Your task to perform on an android device: Search for the Best selling coffee table on Ikea Image 0: 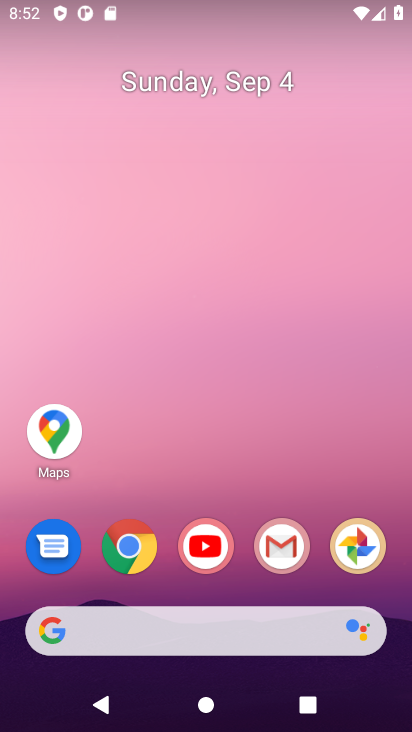
Step 0: click (127, 547)
Your task to perform on an android device: Search for the Best selling coffee table on Ikea Image 1: 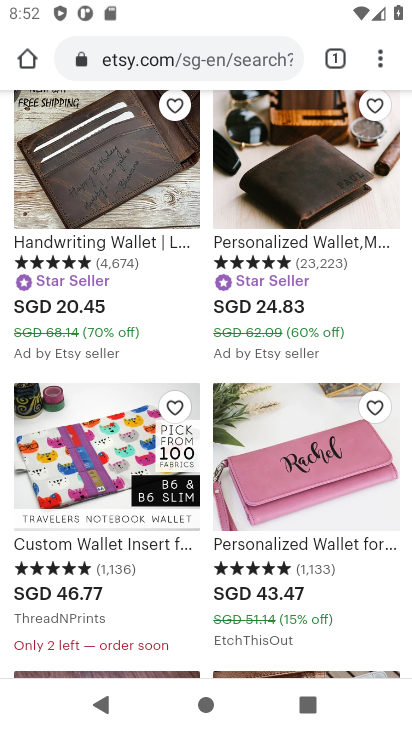
Step 1: press home button
Your task to perform on an android device: Search for the Best selling coffee table on Ikea Image 2: 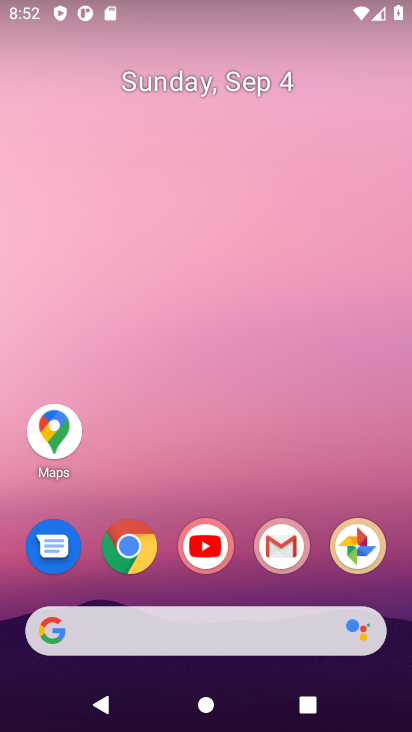
Step 2: click (128, 553)
Your task to perform on an android device: Search for the Best selling coffee table on Ikea Image 3: 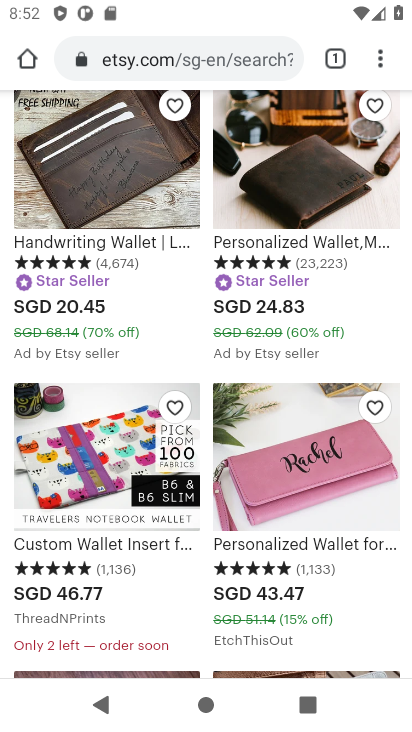
Step 3: click (186, 67)
Your task to perform on an android device: Search for the Best selling coffee table on Ikea Image 4: 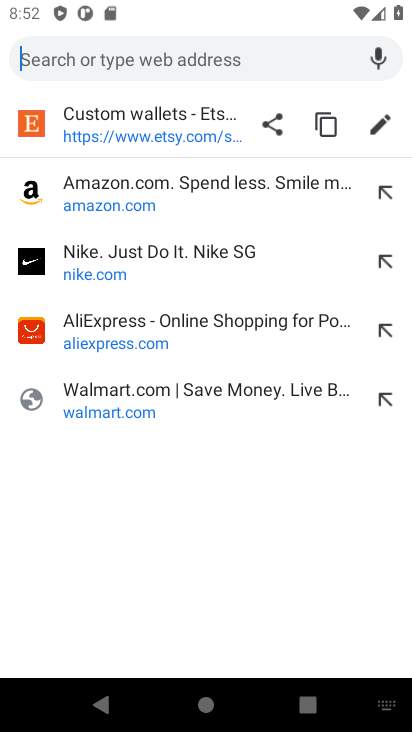
Step 4: type " Ikea"
Your task to perform on an android device: Search for the Best selling coffee table on Ikea Image 5: 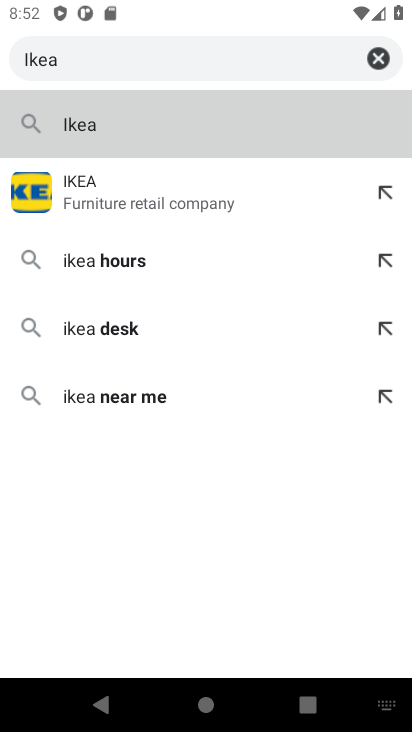
Step 5: click (83, 137)
Your task to perform on an android device: Search for the Best selling coffee table on Ikea Image 6: 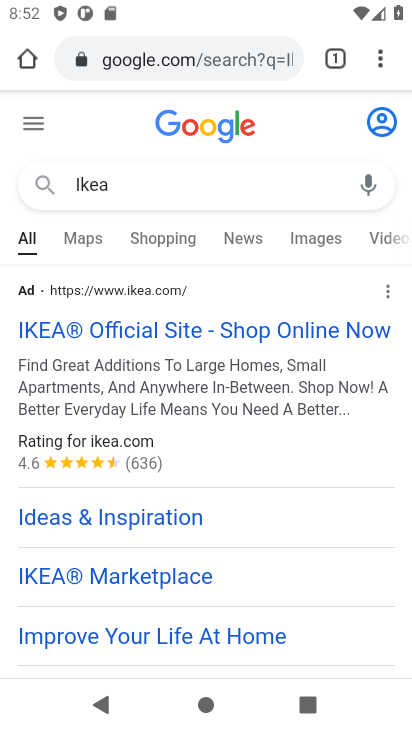
Step 6: drag from (271, 464) to (275, 150)
Your task to perform on an android device: Search for the Best selling coffee table on Ikea Image 7: 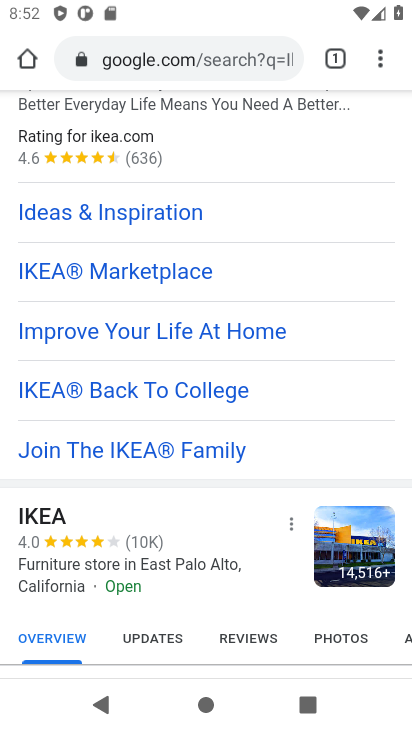
Step 7: drag from (218, 249) to (225, 149)
Your task to perform on an android device: Search for the Best selling coffee table on Ikea Image 8: 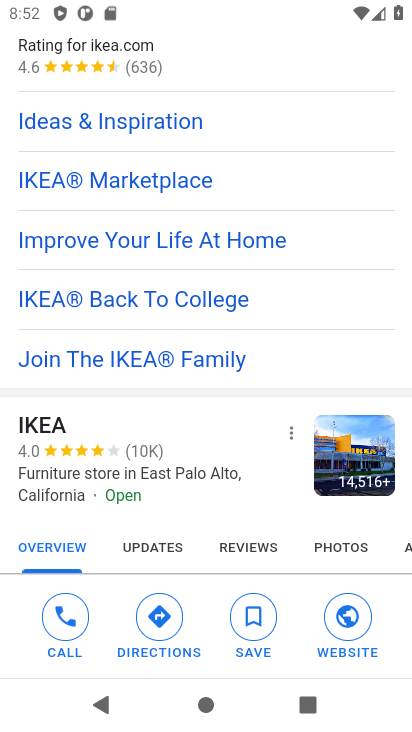
Step 8: drag from (304, 415) to (306, 161)
Your task to perform on an android device: Search for the Best selling coffee table on Ikea Image 9: 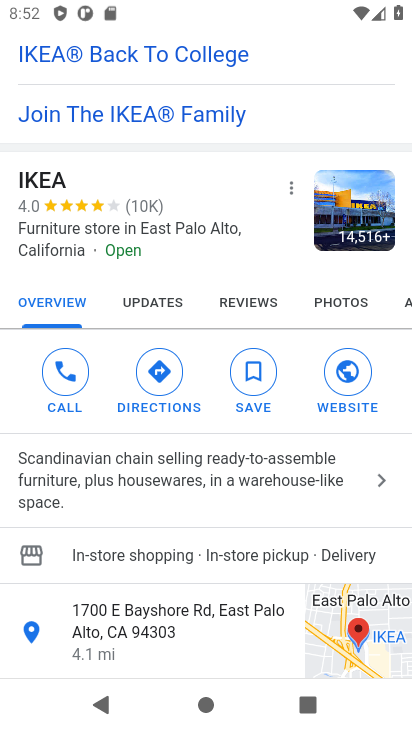
Step 9: drag from (200, 298) to (228, 97)
Your task to perform on an android device: Search for the Best selling coffee table on Ikea Image 10: 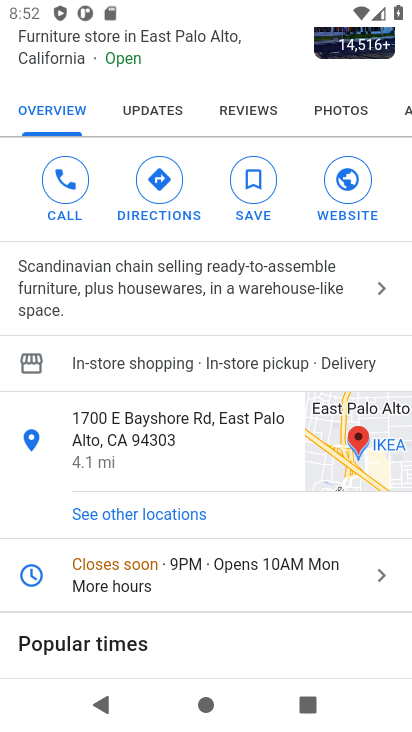
Step 10: drag from (190, 270) to (200, 169)
Your task to perform on an android device: Search for the Best selling coffee table on Ikea Image 11: 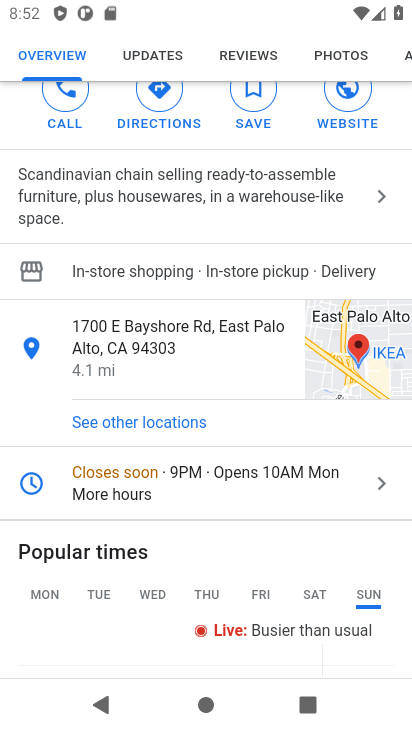
Step 11: drag from (151, 501) to (215, 193)
Your task to perform on an android device: Search for the Best selling coffee table on Ikea Image 12: 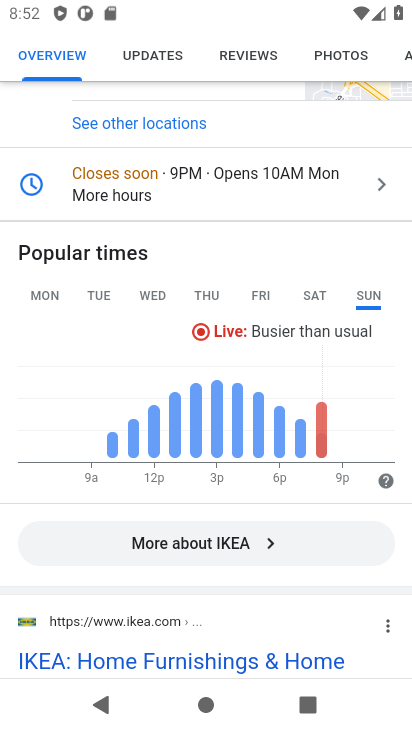
Step 12: drag from (153, 445) to (185, 200)
Your task to perform on an android device: Search for the Best selling coffee table on Ikea Image 13: 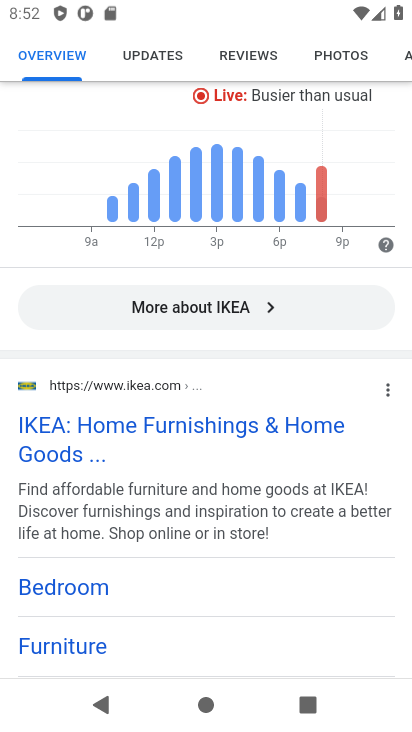
Step 13: click (125, 421)
Your task to perform on an android device: Search for the Best selling coffee table on Ikea Image 14: 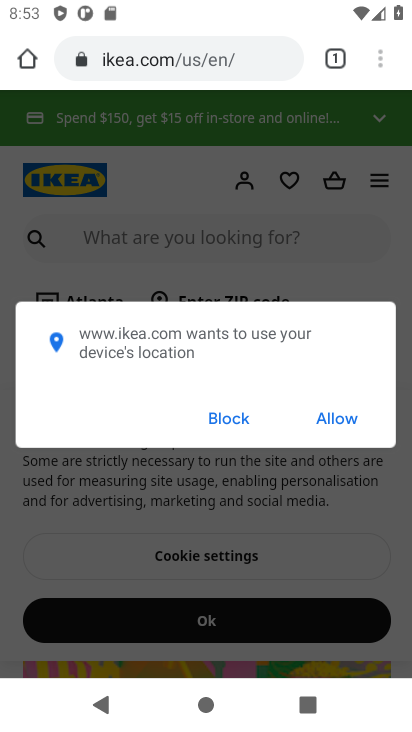
Step 14: click (220, 417)
Your task to perform on an android device: Search for the Best selling coffee table on Ikea Image 15: 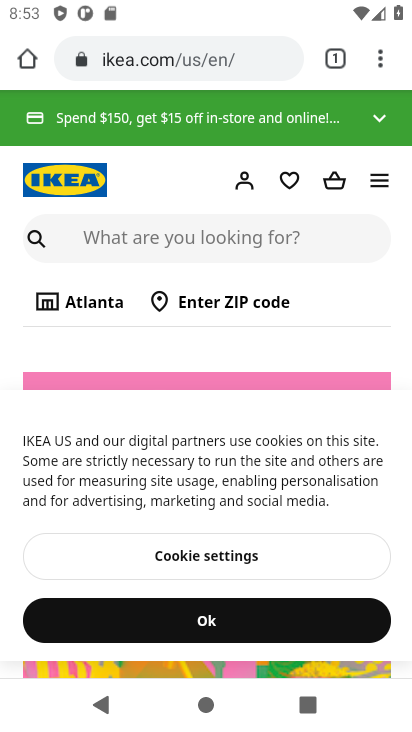
Step 15: click (133, 242)
Your task to perform on an android device: Search for the Best selling coffee table on Ikea Image 16: 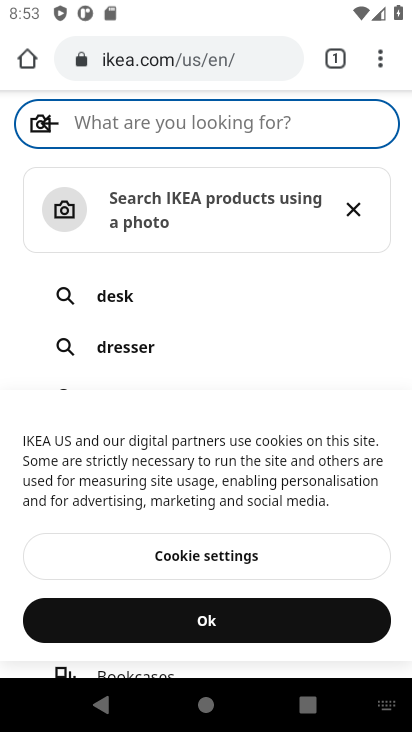
Step 16: type "Best selling coffee table"
Your task to perform on an android device: Search for the Best selling coffee table on Ikea Image 17: 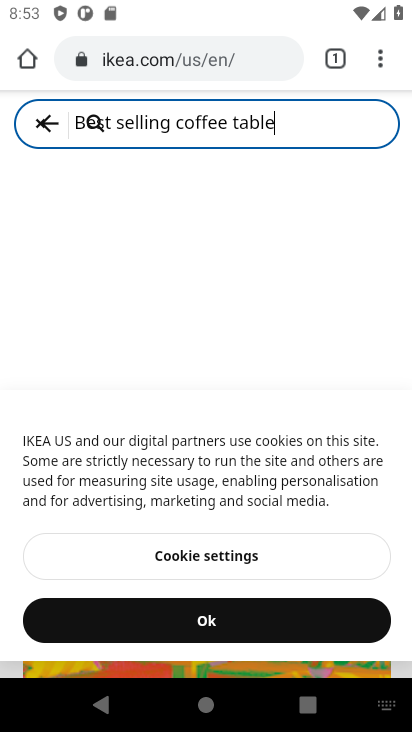
Step 17: click (293, 125)
Your task to perform on an android device: Search for the Best selling coffee table on Ikea Image 18: 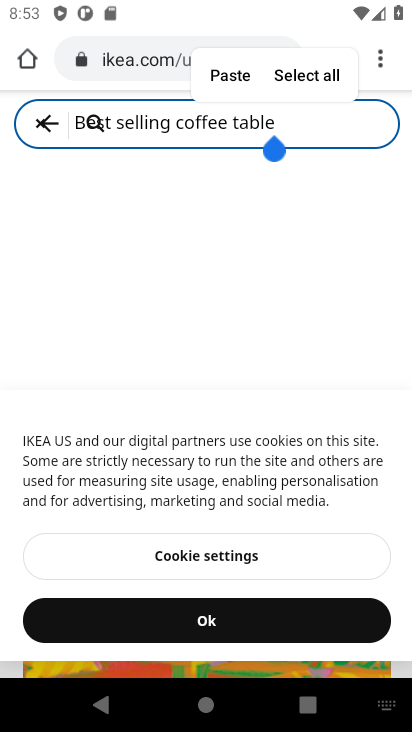
Step 18: click (218, 618)
Your task to perform on an android device: Search for the Best selling coffee table on Ikea Image 19: 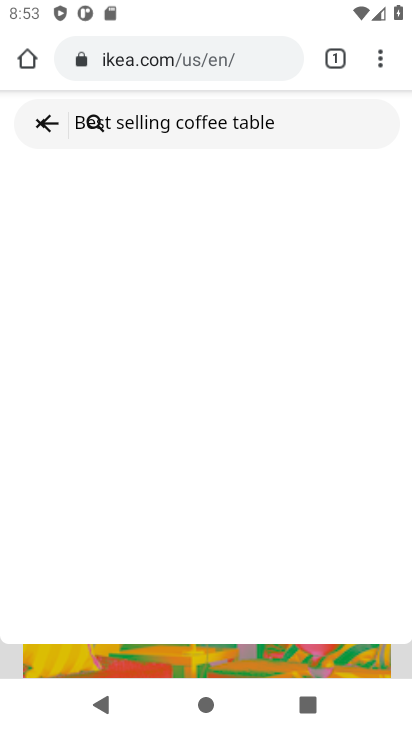
Step 19: click (296, 130)
Your task to perform on an android device: Search for the Best selling coffee table on Ikea Image 20: 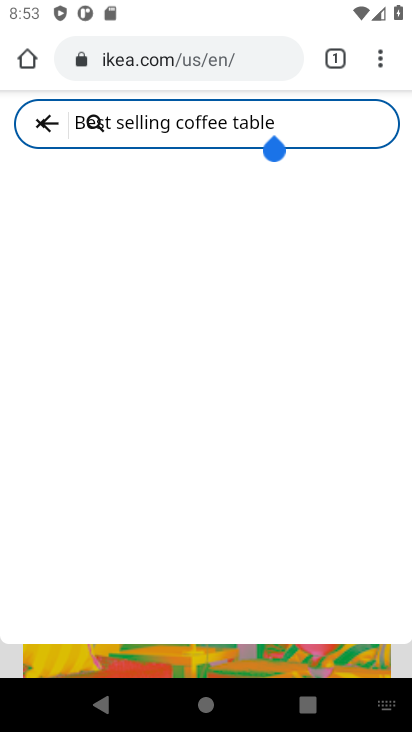
Step 20: click (92, 123)
Your task to perform on an android device: Search for the Best selling coffee table on Ikea Image 21: 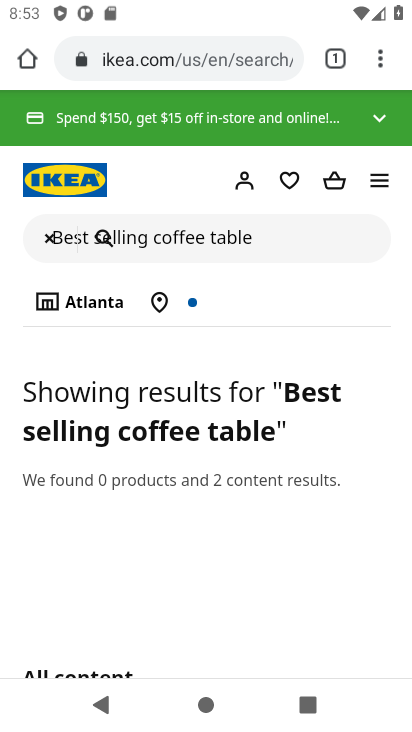
Step 21: drag from (178, 488) to (208, 184)
Your task to perform on an android device: Search for the Best selling coffee table on Ikea Image 22: 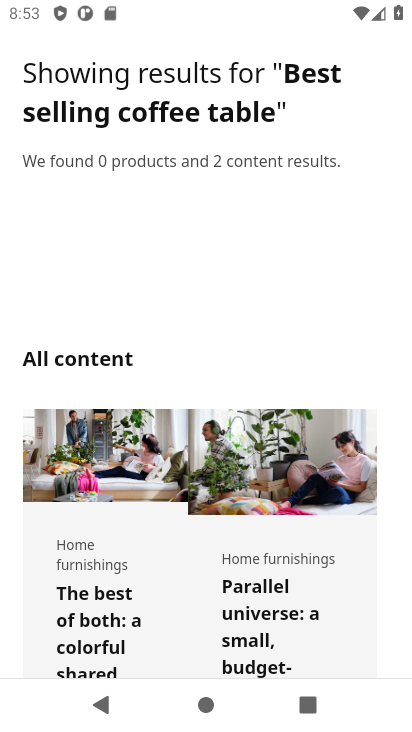
Step 22: drag from (196, 478) to (192, 257)
Your task to perform on an android device: Search for the Best selling coffee table on Ikea Image 23: 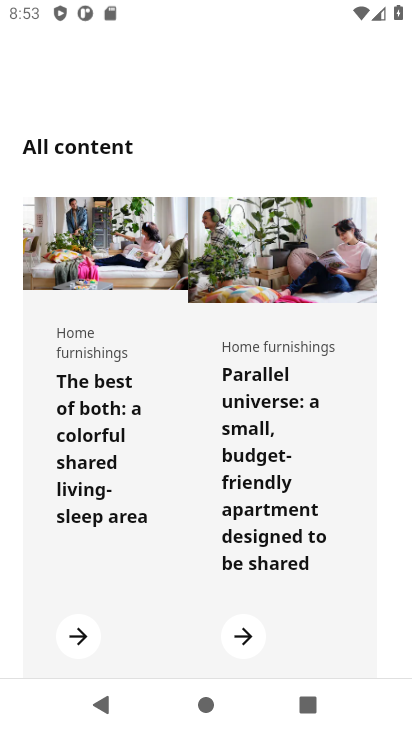
Step 23: drag from (156, 493) to (181, 281)
Your task to perform on an android device: Search for the Best selling coffee table on Ikea Image 24: 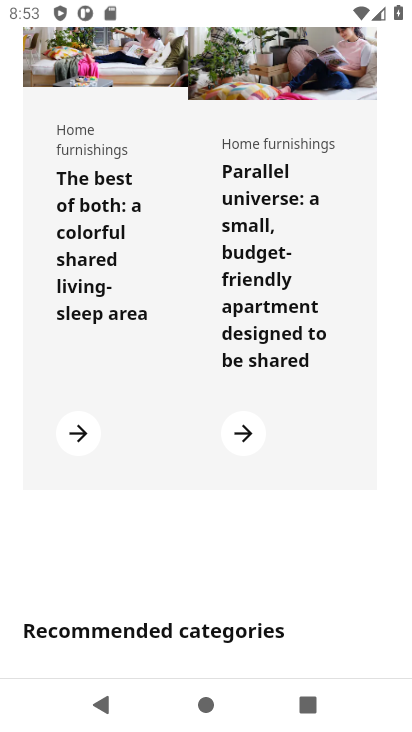
Step 24: drag from (171, 394) to (189, 202)
Your task to perform on an android device: Search for the Best selling coffee table on Ikea Image 25: 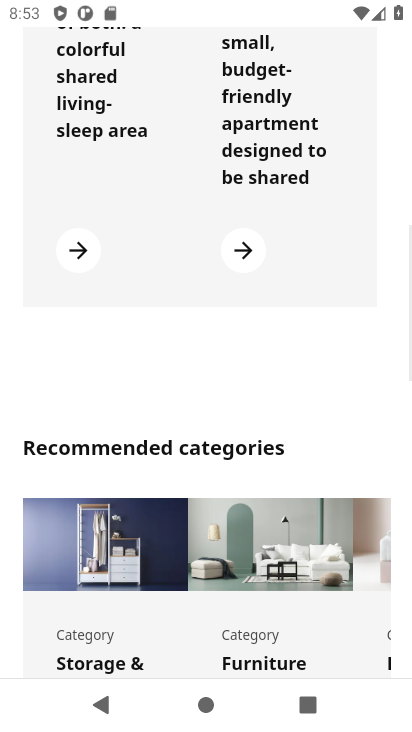
Step 25: drag from (174, 565) to (176, 257)
Your task to perform on an android device: Search for the Best selling coffee table on Ikea Image 26: 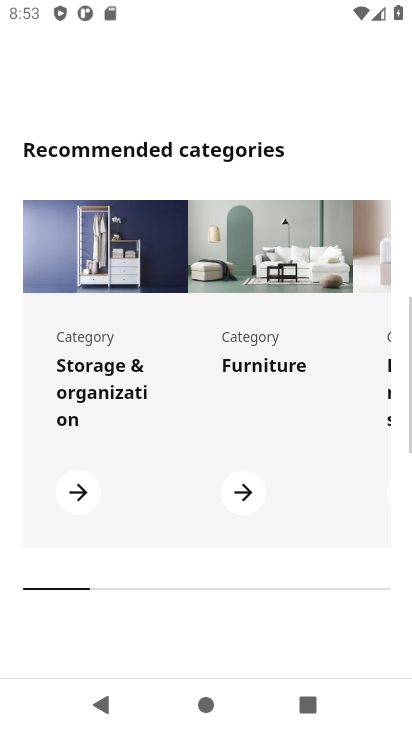
Step 26: drag from (175, 246) to (222, 695)
Your task to perform on an android device: Search for the Best selling coffee table on Ikea Image 27: 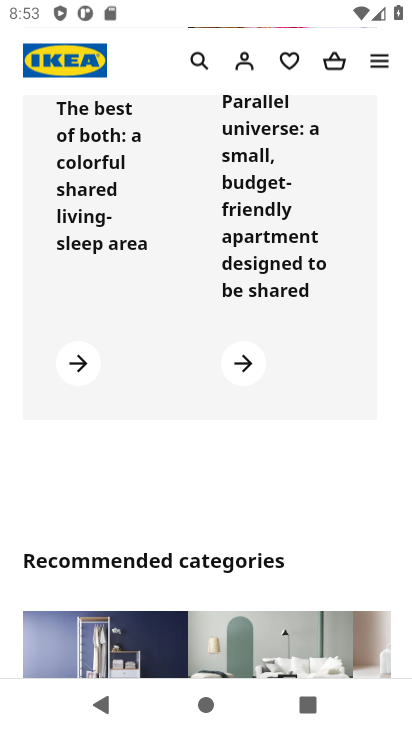
Step 27: drag from (186, 291) to (216, 672)
Your task to perform on an android device: Search for the Best selling coffee table on Ikea Image 28: 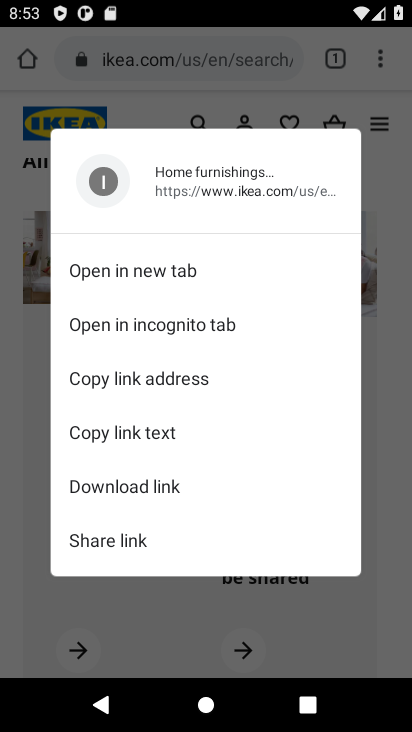
Step 28: click (379, 345)
Your task to perform on an android device: Search for the Best selling coffee table on Ikea Image 29: 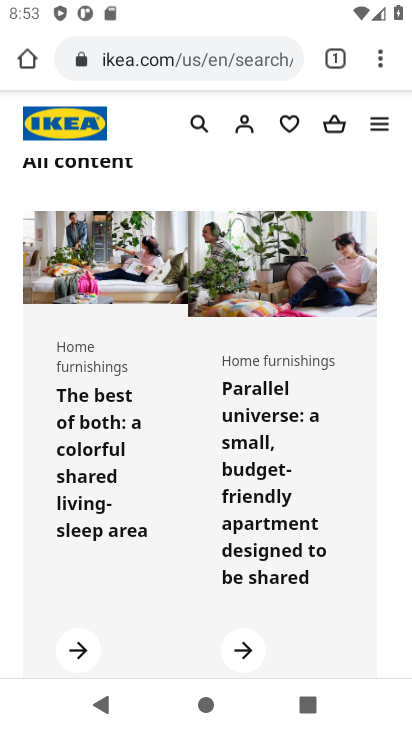
Step 29: drag from (155, 239) to (170, 519)
Your task to perform on an android device: Search for the Best selling coffee table on Ikea Image 30: 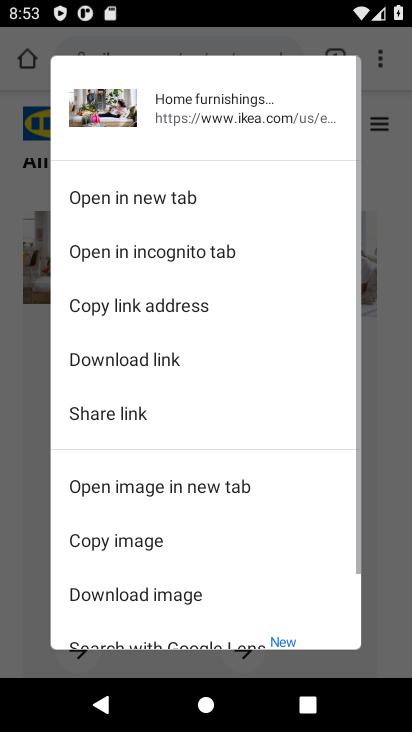
Step 30: click (389, 207)
Your task to perform on an android device: Search for the Best selling coffee table on Ikea Image 31: 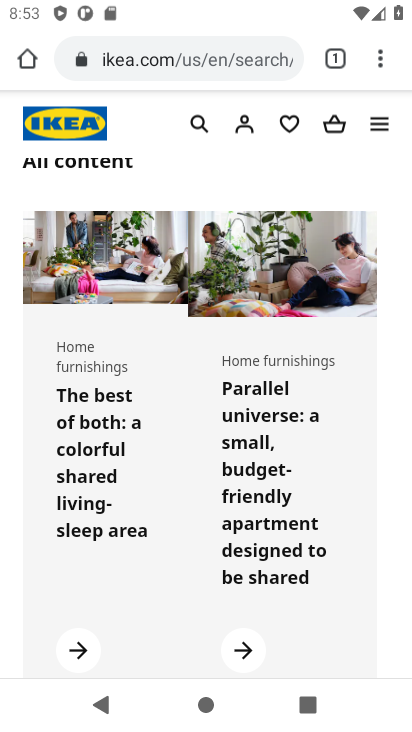
Step 31: drag from (389, 177) to (409, 613)
Your task to perform on an android device: Search for the Best selling coffee table on Ikea Image 32: 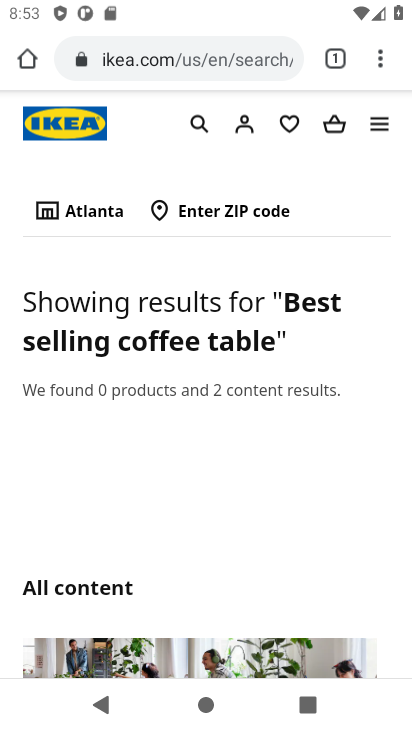
Step 32: click (169, 346)
Your task to perform on an android device: Search for the Best selling coffee table on Ikea Image 33: 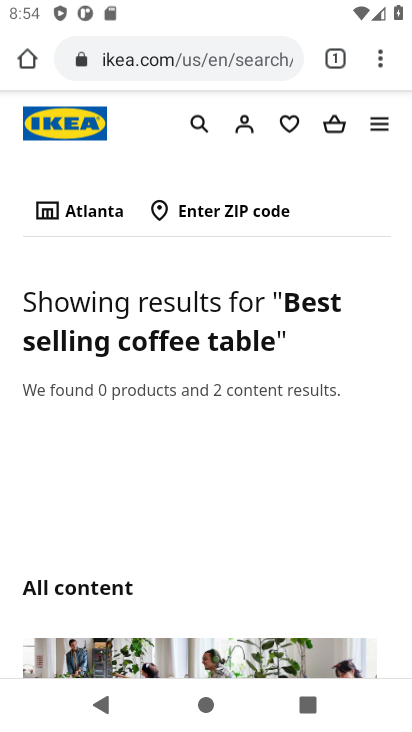
Step 33: task complete